Your task to perform on an android device: Search for sushi restaurants on Maps Image 0: 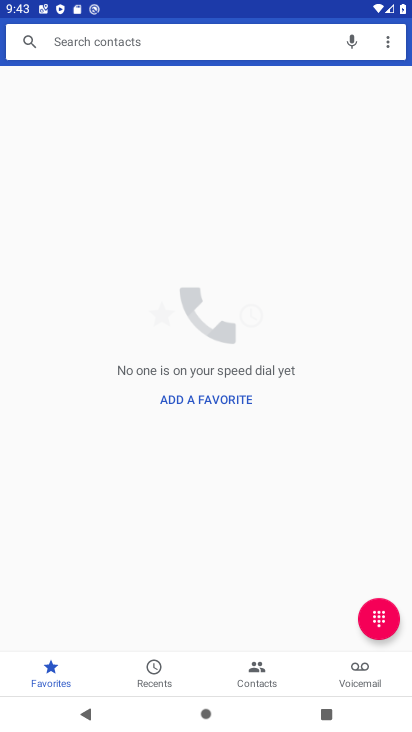
Step 0: press home button
Your task to perform on an android device: Search for sushi restaurants on Maps Image 1: 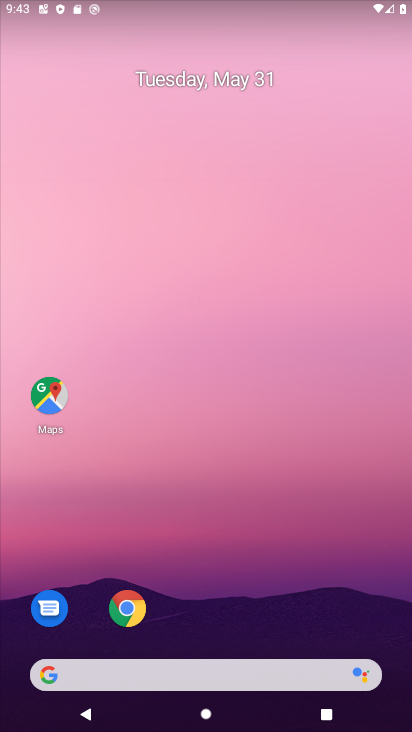
Step 1: click (44, 413)
Your task to perform on an android device: Search for sushi restaurants on Maps Image 2: 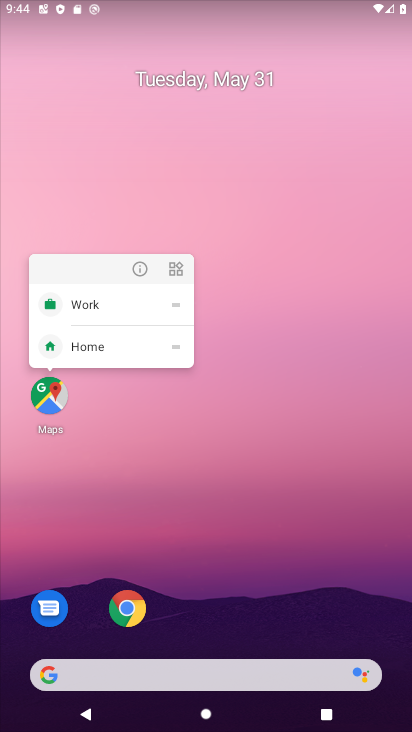
Step 2: click (49, 399)
Your task to perform on an android device: Search for sushi restaurants on Maps Image 3: 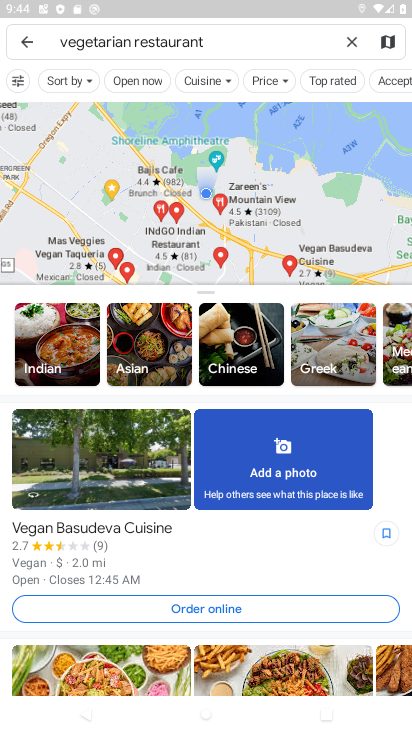
Step 3: click (347, 39)
Your task to perform on an android device: Search for sushi restaurants on Maps Image 4: 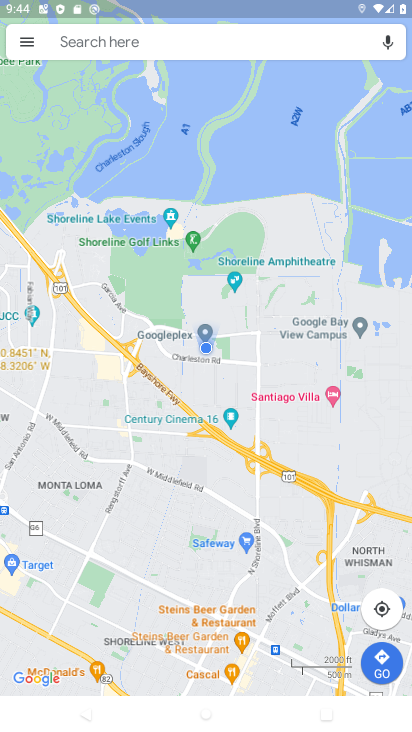
Step 4: click (185, 44)
Your task to perform on an android device: Search for sushi restaurants on Maps Image 5: 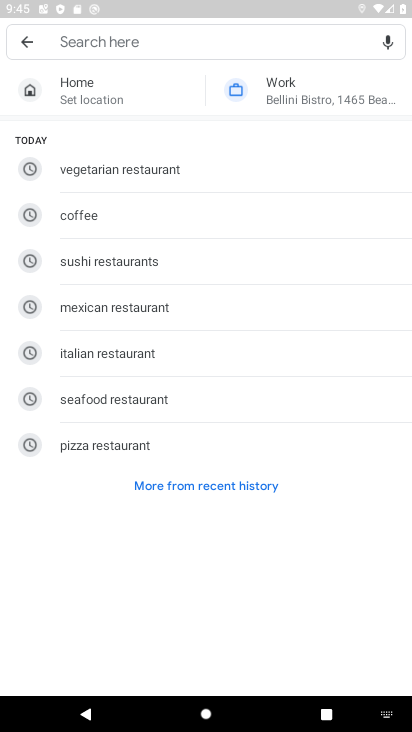
Step 5: click (104, 272)
Your task to perform on an android device: Search for sushi restaurants on Maps Image 6: 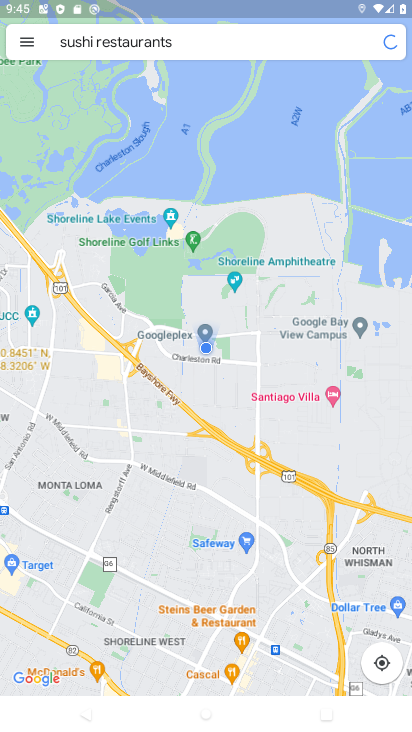
Step 6: task complete